Your task to perform on an android device: turn on location history Image 0: 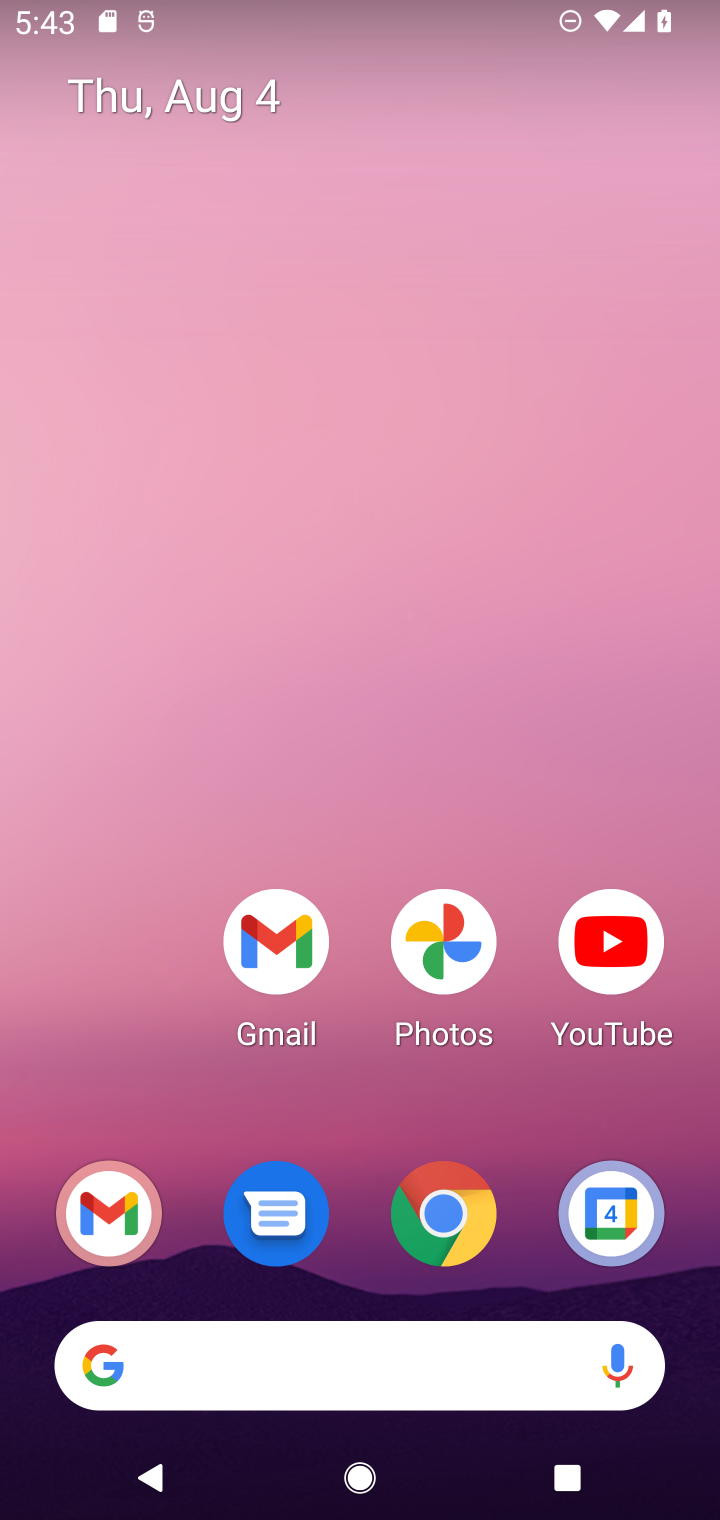
Step 0: press home button
Your task to perform on an android device: turn on location history Image 1: 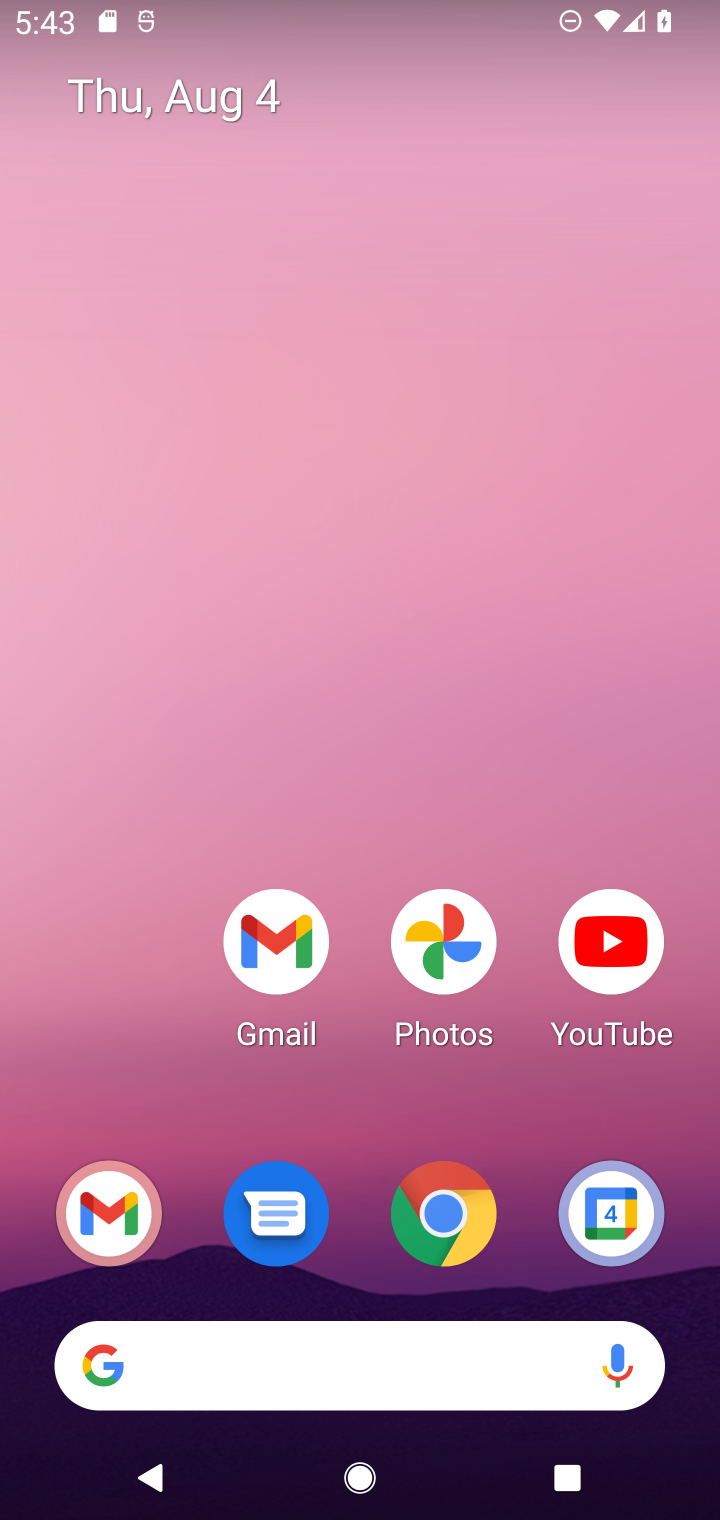
Step 1: drag from (169, 942) to (178, 339)
Your task to perform on an android device: turn on location history Image 2: 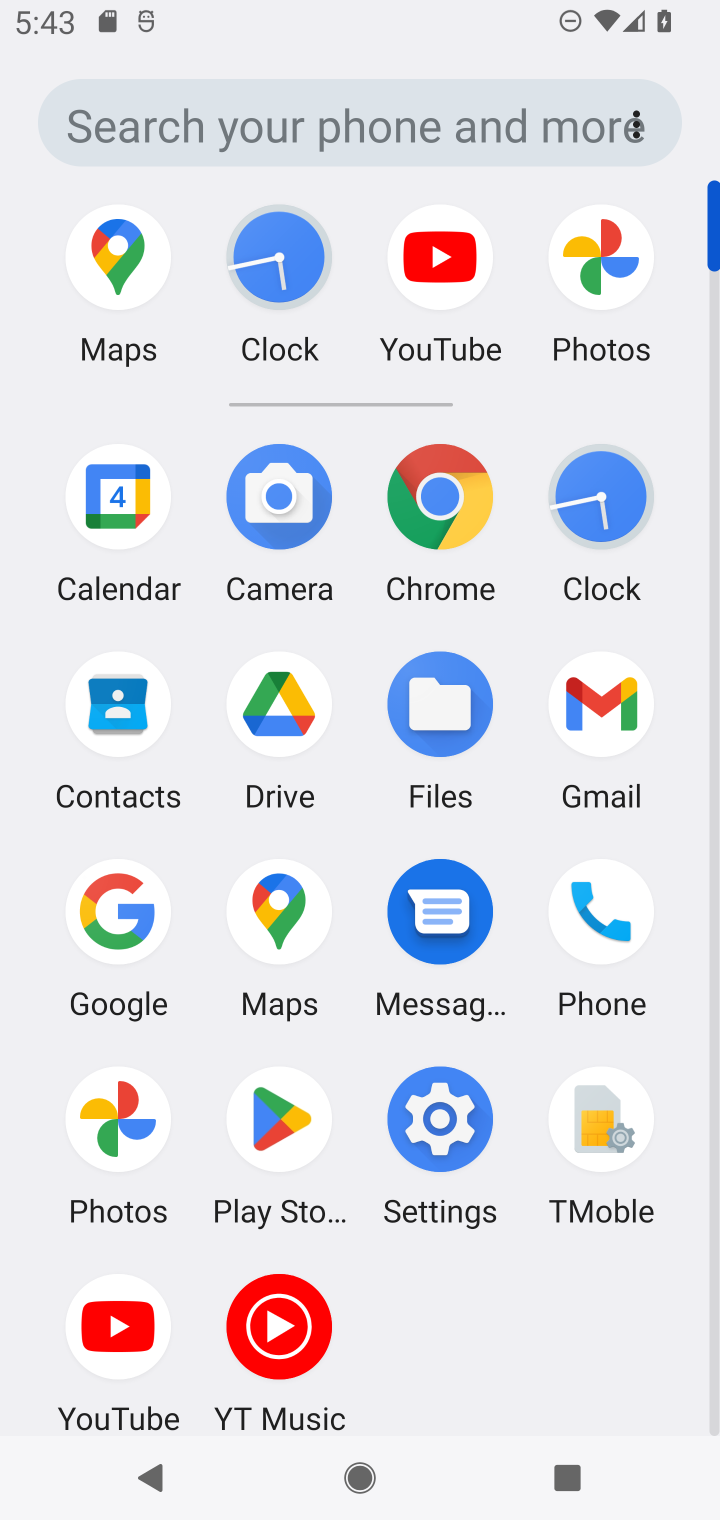
Step 2: click (455, 1132)
Your task to perform on an android device: turn on location history Image 3: 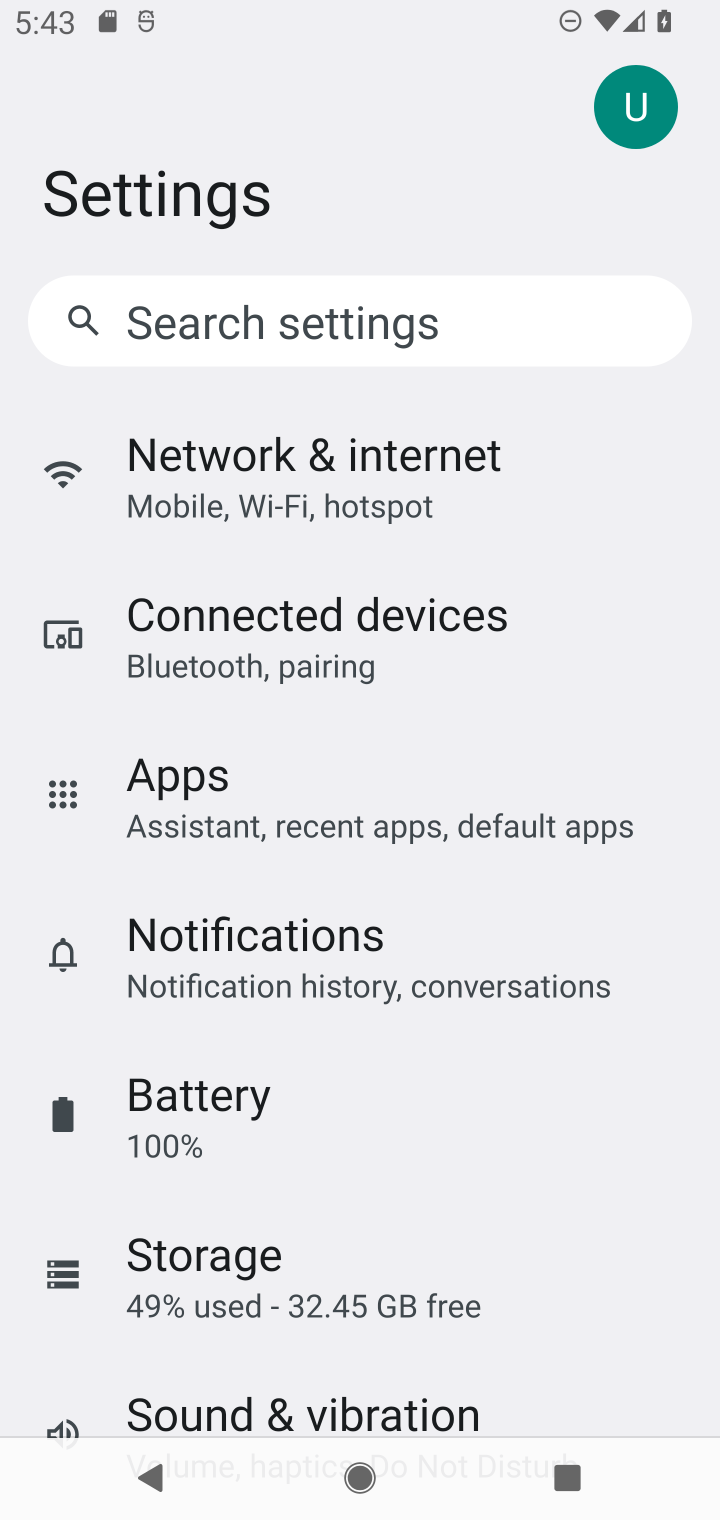
Step 3: drag from (640, 1135) to (648, 883)
Your task to perform on an android device: turn on location history Image 4: 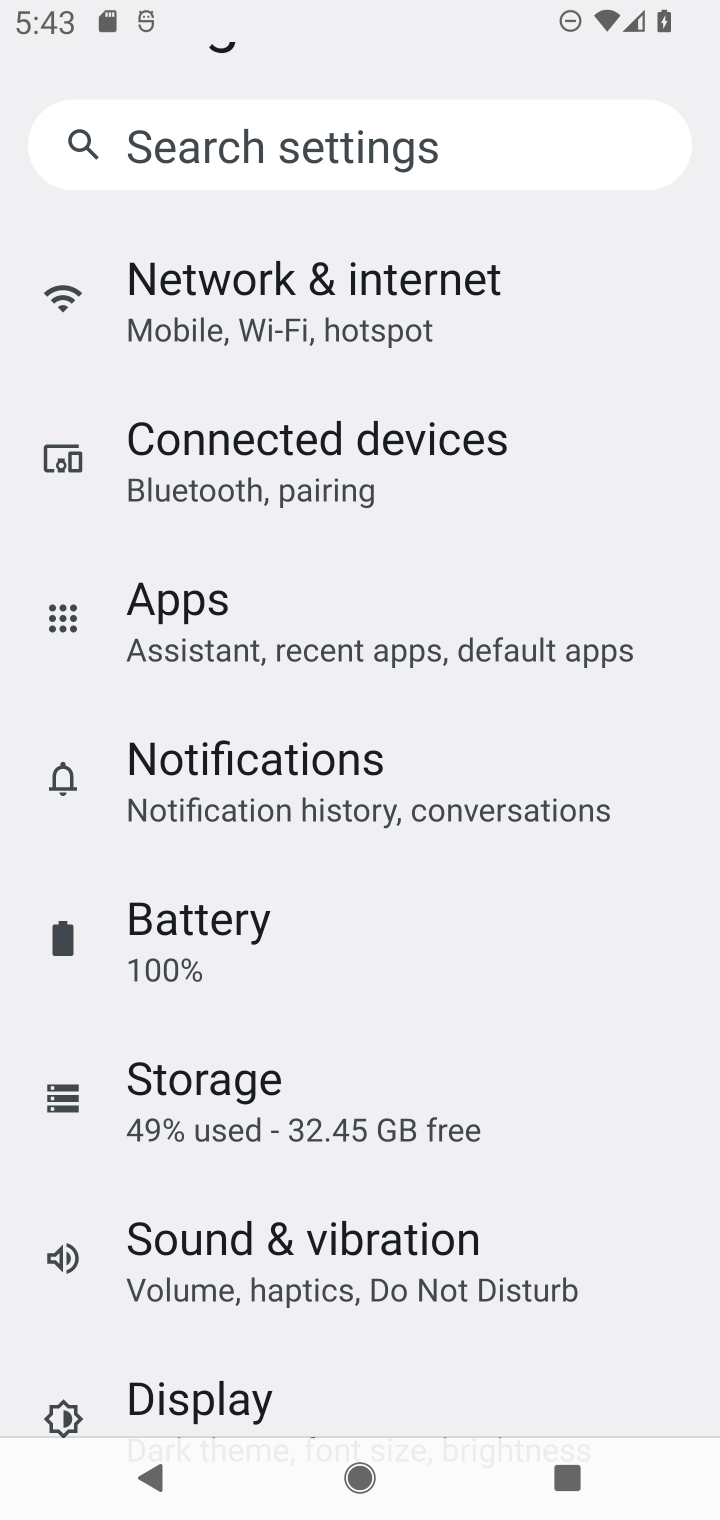
Step 4: drag from (613, 1297) to (622, 946)
Your task to perform on an android device: turn on location history Image 5: 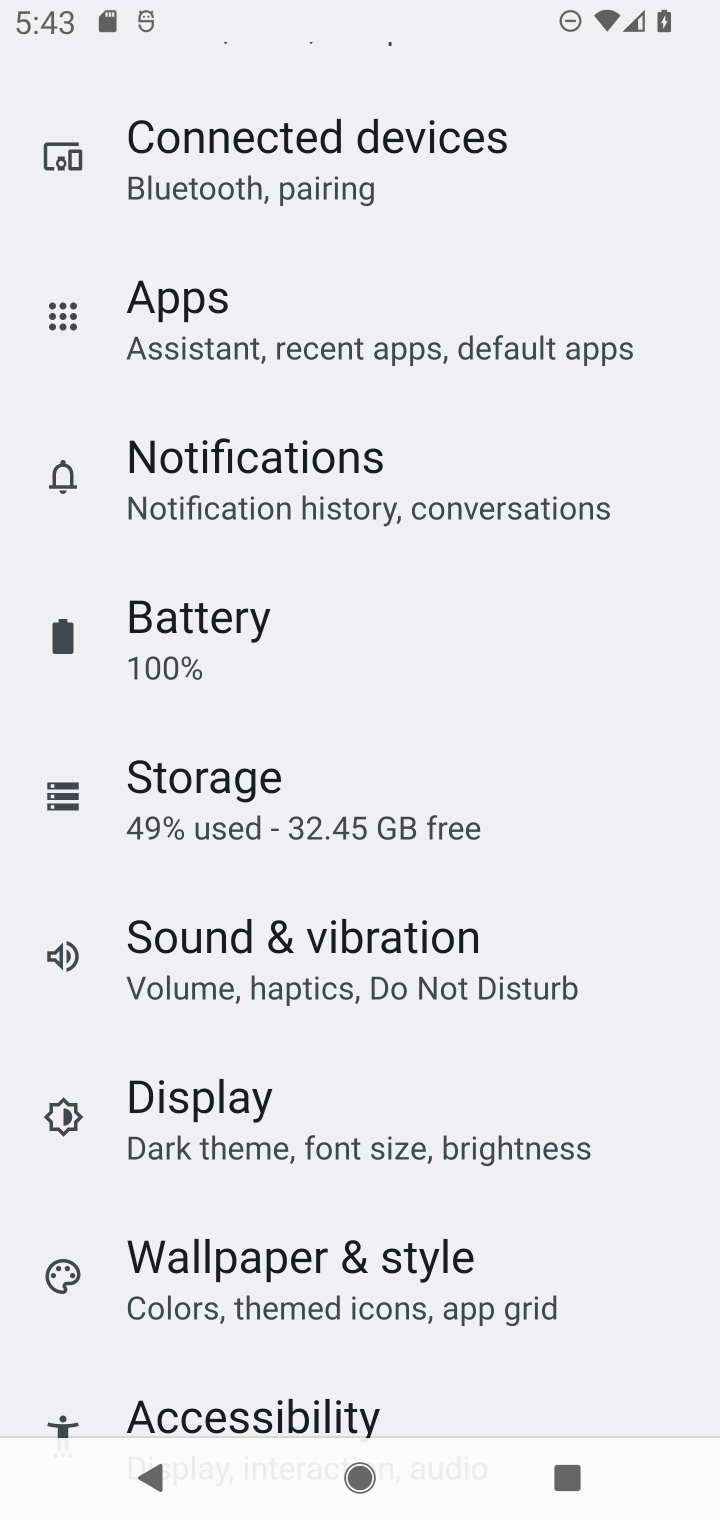
Step 5: drag from (636, 1327) to (627, 976)
Your task to perform on an android device: turn on location history Image 6: 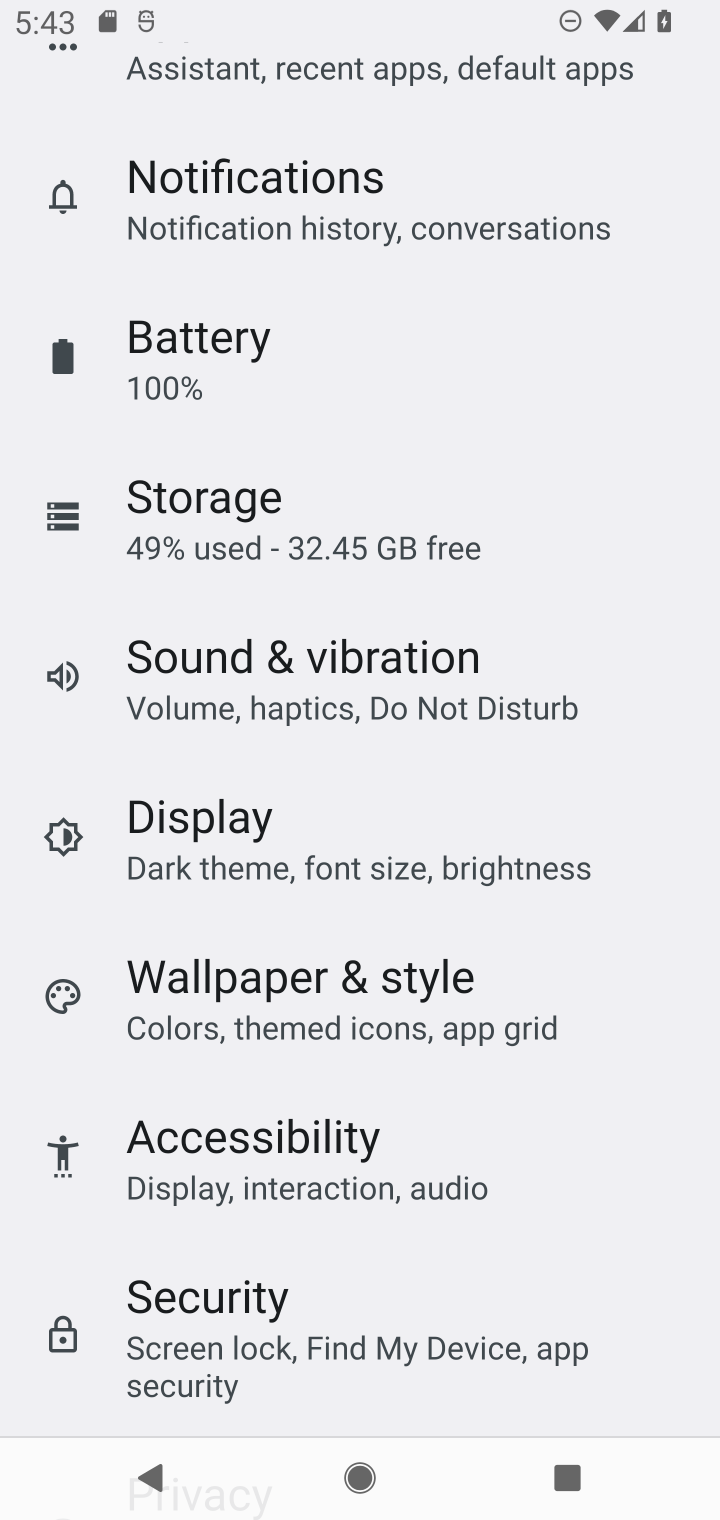
Step 6: drag from (634, 1350) to (638, 998)
Your task to perform on an android device: turn on location history Image 7: 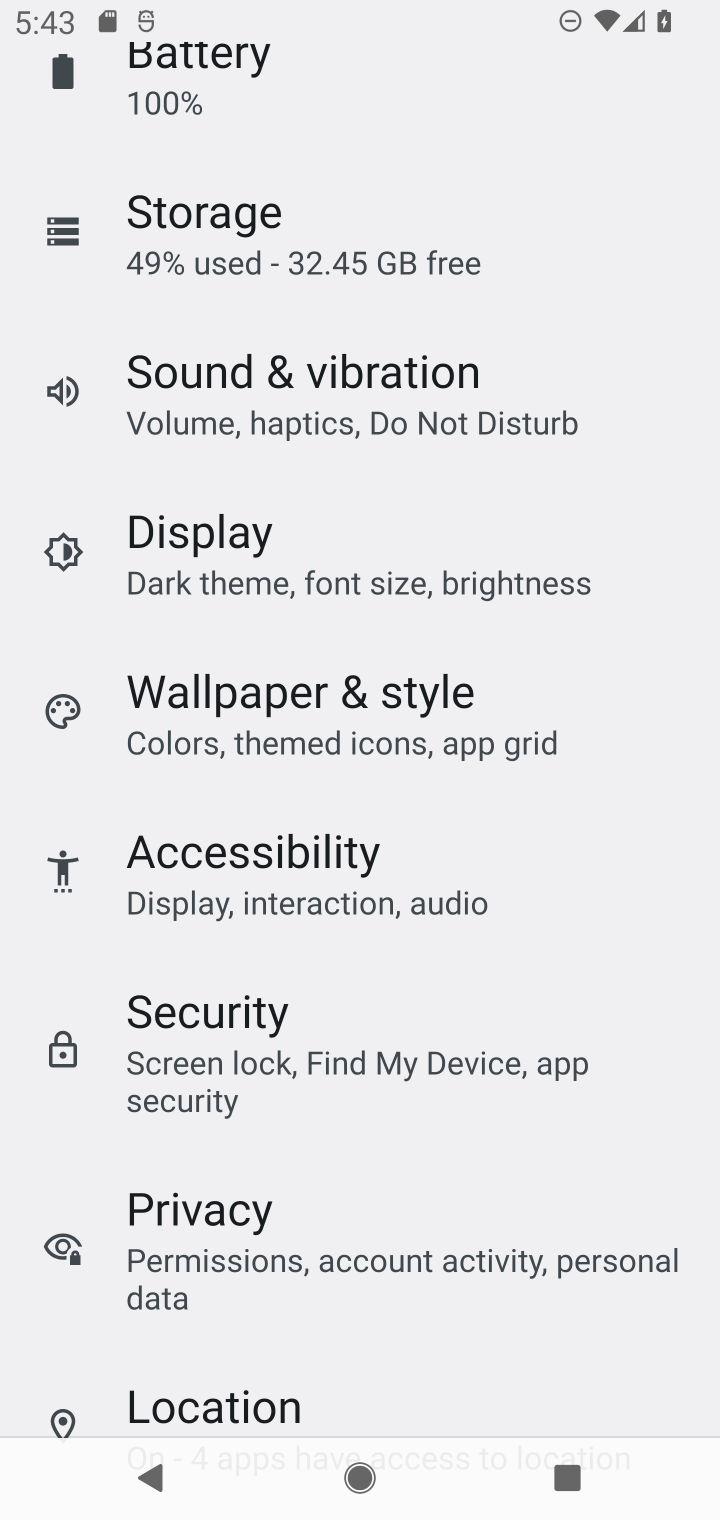
Step 7: drag from (623, 1304) to (628, 1071)
Your task to perform on an android device: turn on location history Image 8: 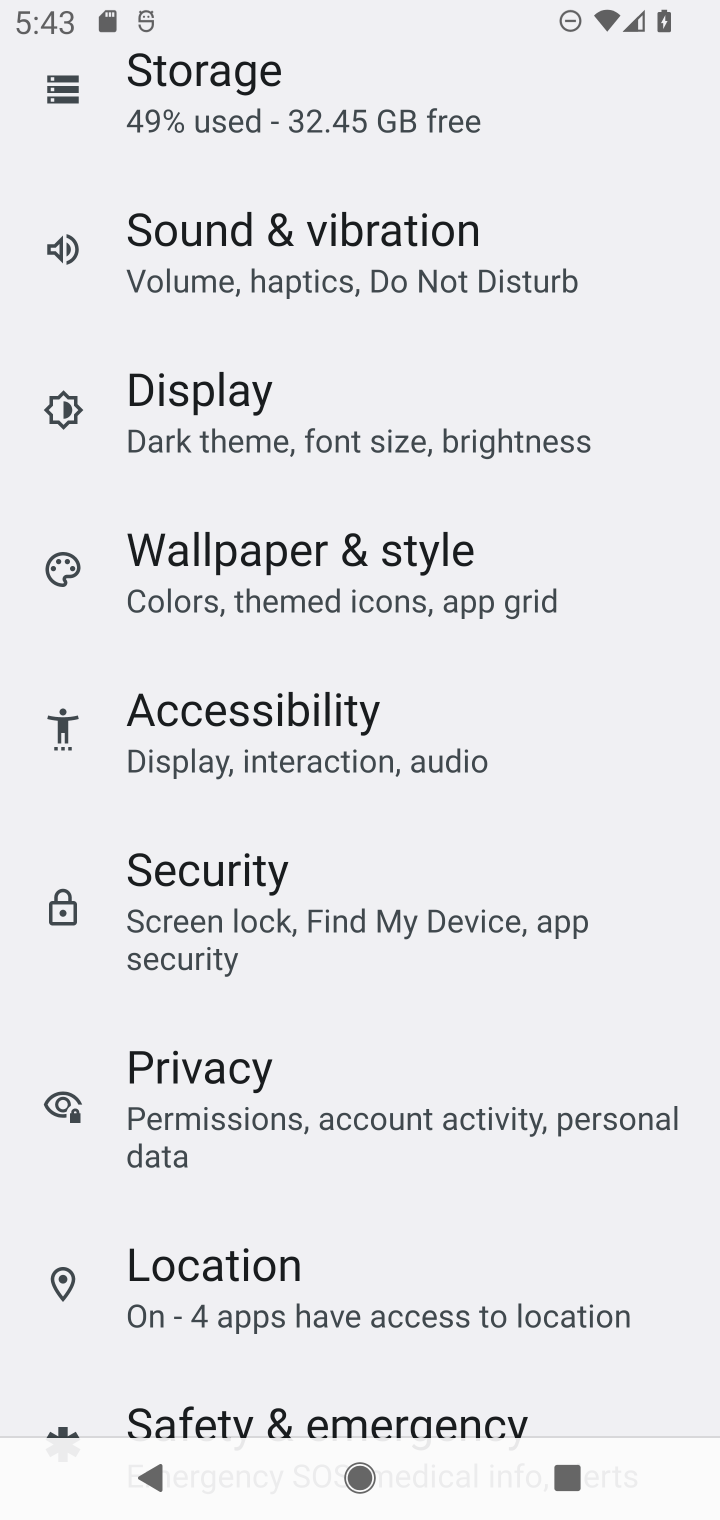
Step 8: drag from (614, 1364) to (621, 1008)
Your task to perform on an android device: turn on location history Image 9: 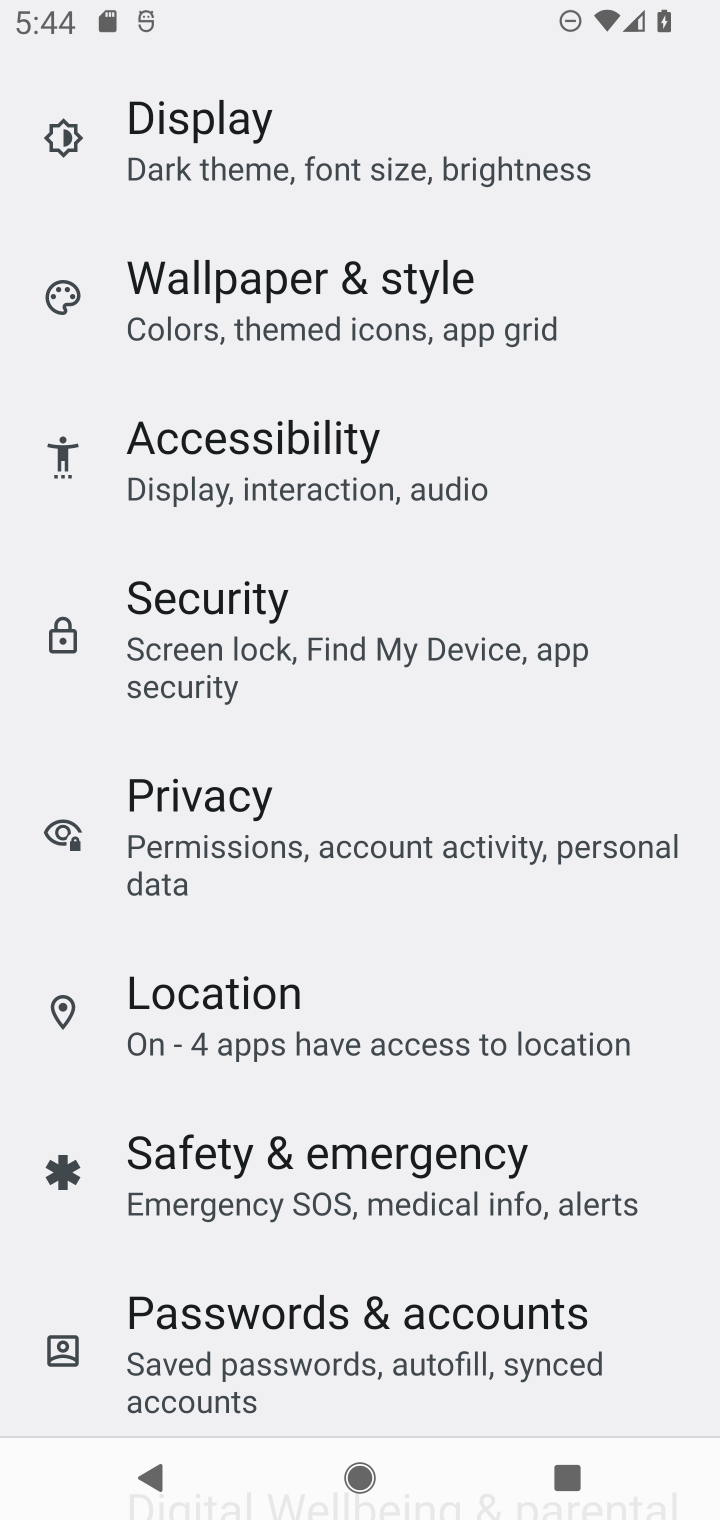
Step 9: drag from (647, 1349) to (639, 1086)
Your task to perform on an android device: turn on location history Image 10: 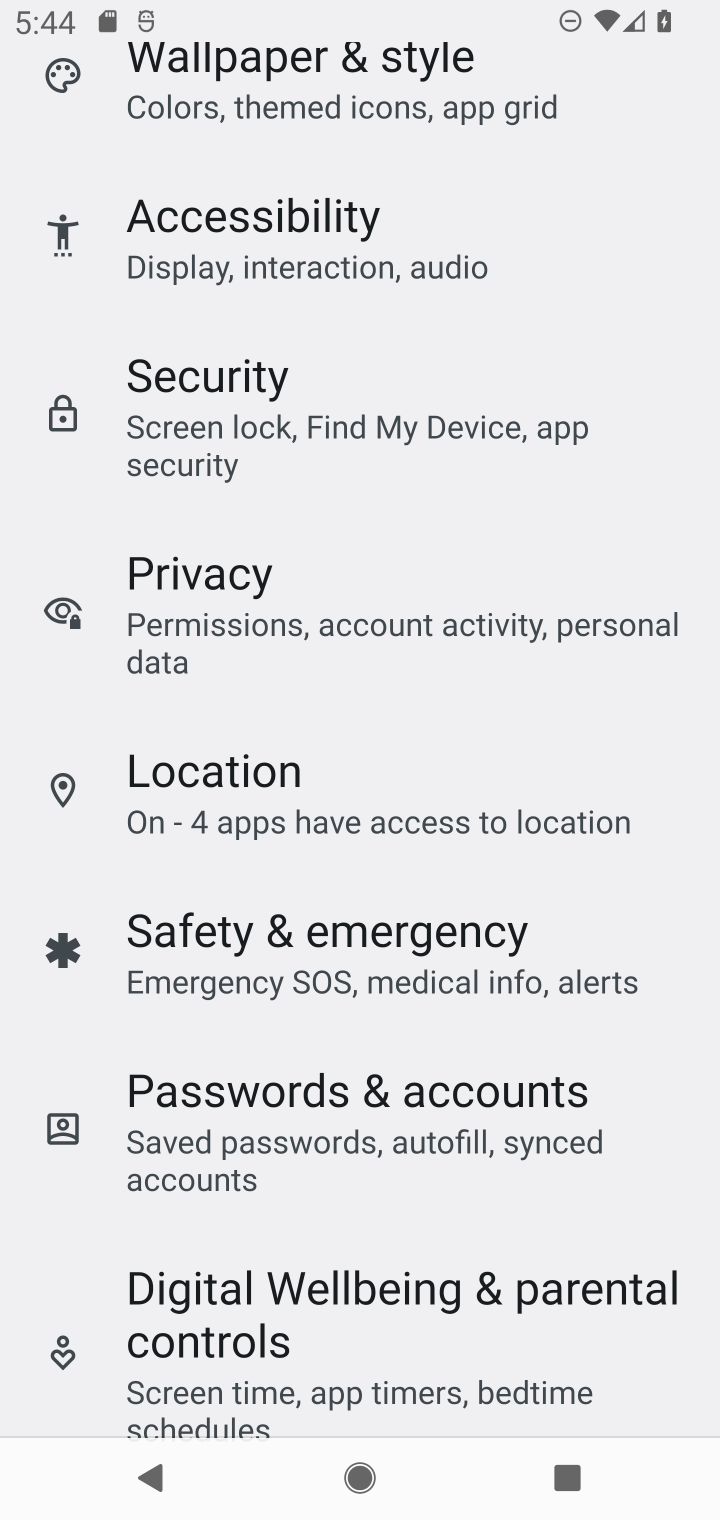
Step 10: drag from (626, 1341) to (643, 998)
Your task to perform on an android device: turn on location history Image 11: 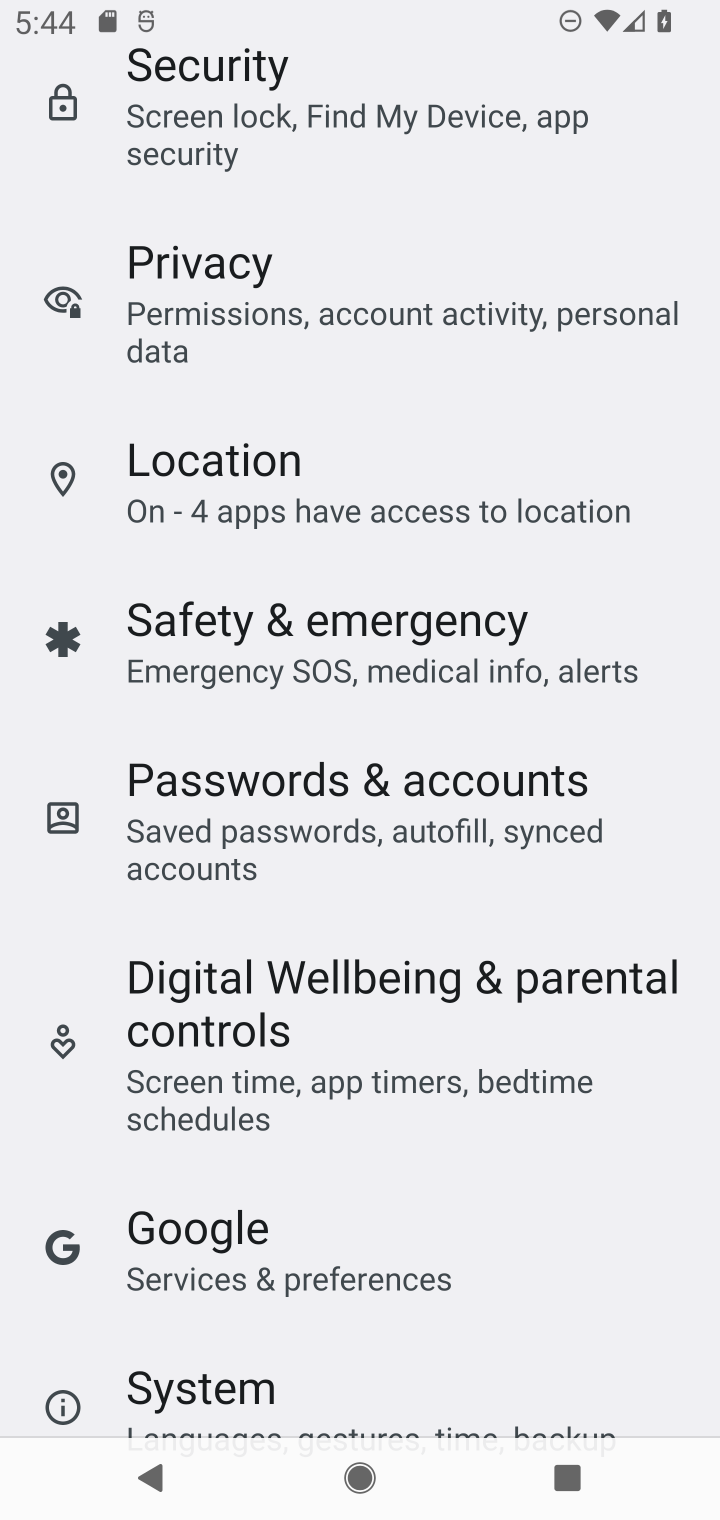
Step 11: drag from (665, 494) to (627, 860)
Your task to perform on an android device: turn on location history Image 12: 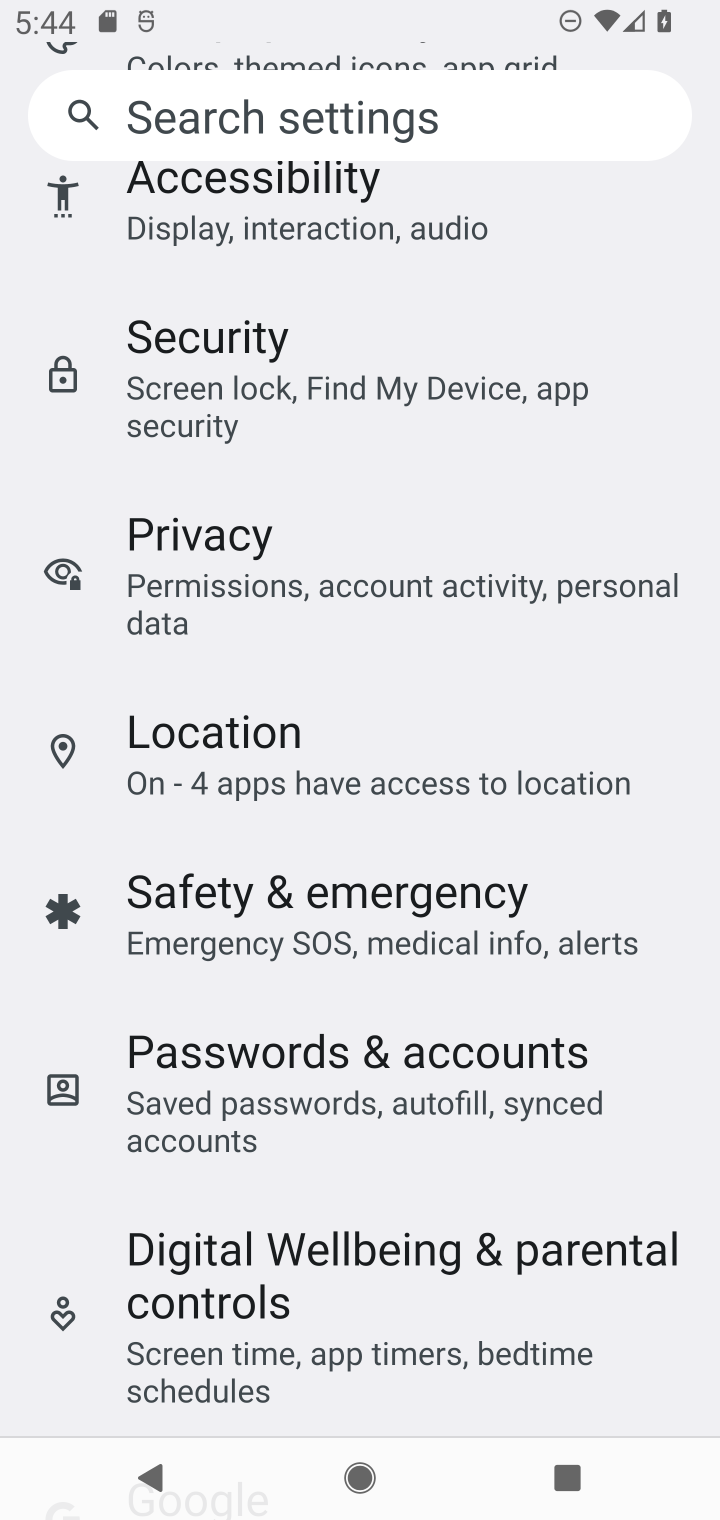
Step 12: drag from (664, 465) to (621, 781)
Your task to perform on an android device: turn on location history Image 13: 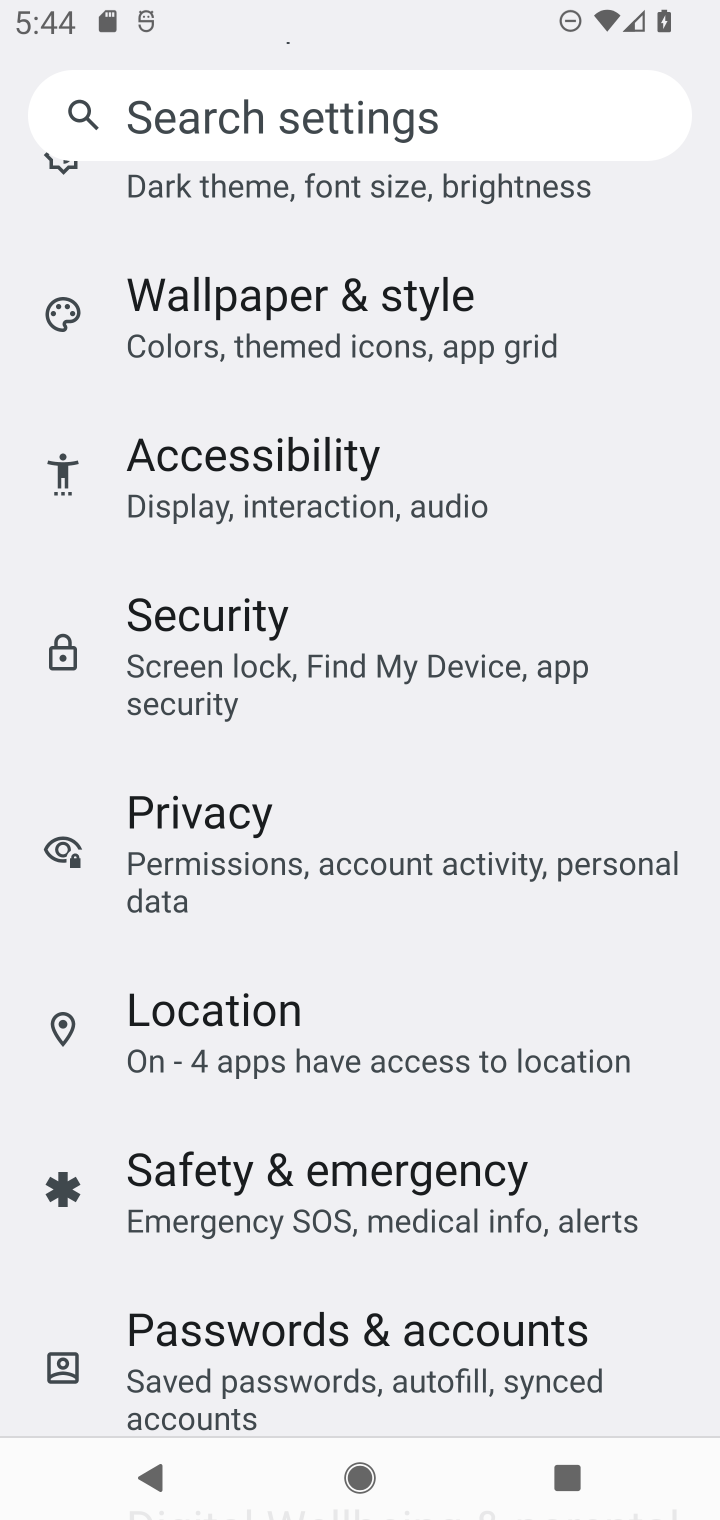
Step 13: drag from (617, 430) to (608, 801)
Your task to perform on an android device: turn on location history Image 14: 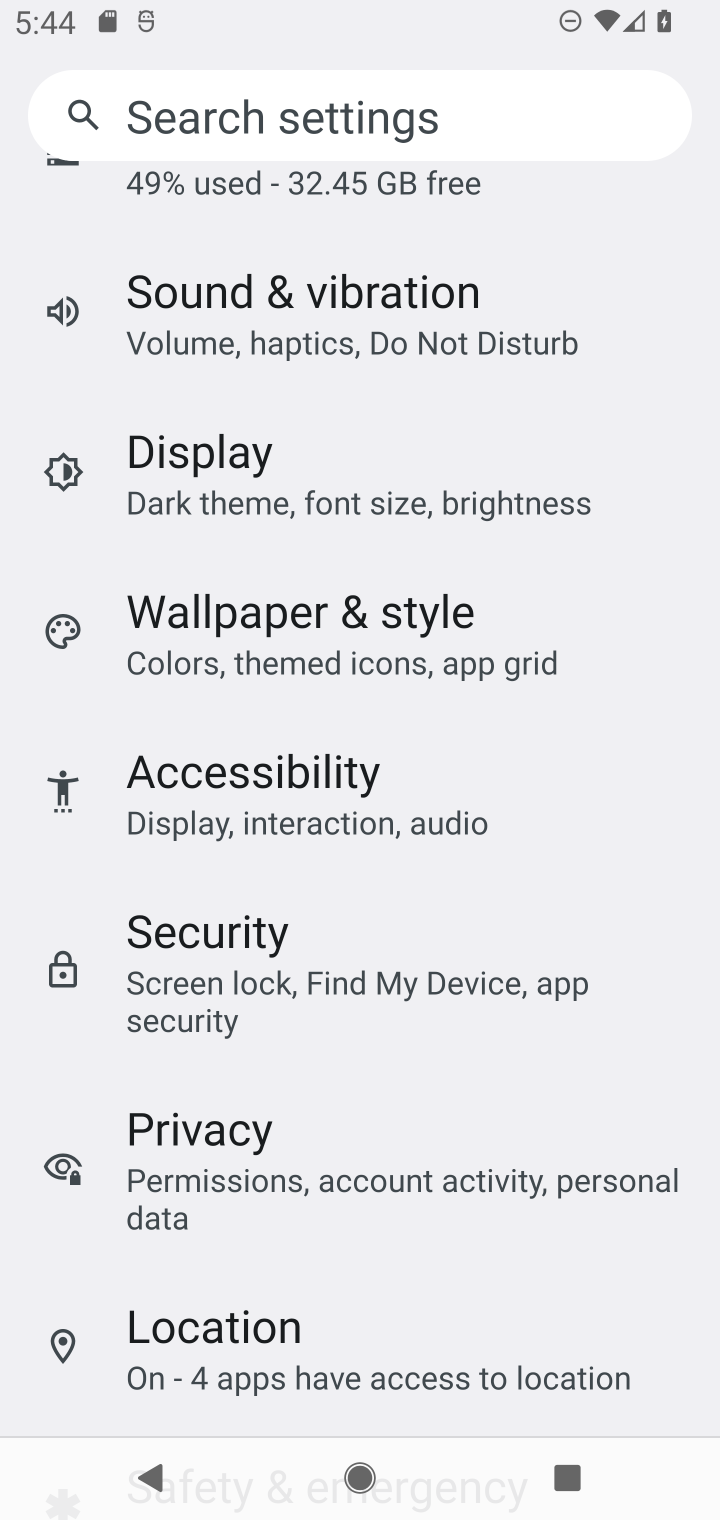
Step 14: drag from (652, 371) to (624, 701)
Your task to perform on an android device: turn on location history Image 15: 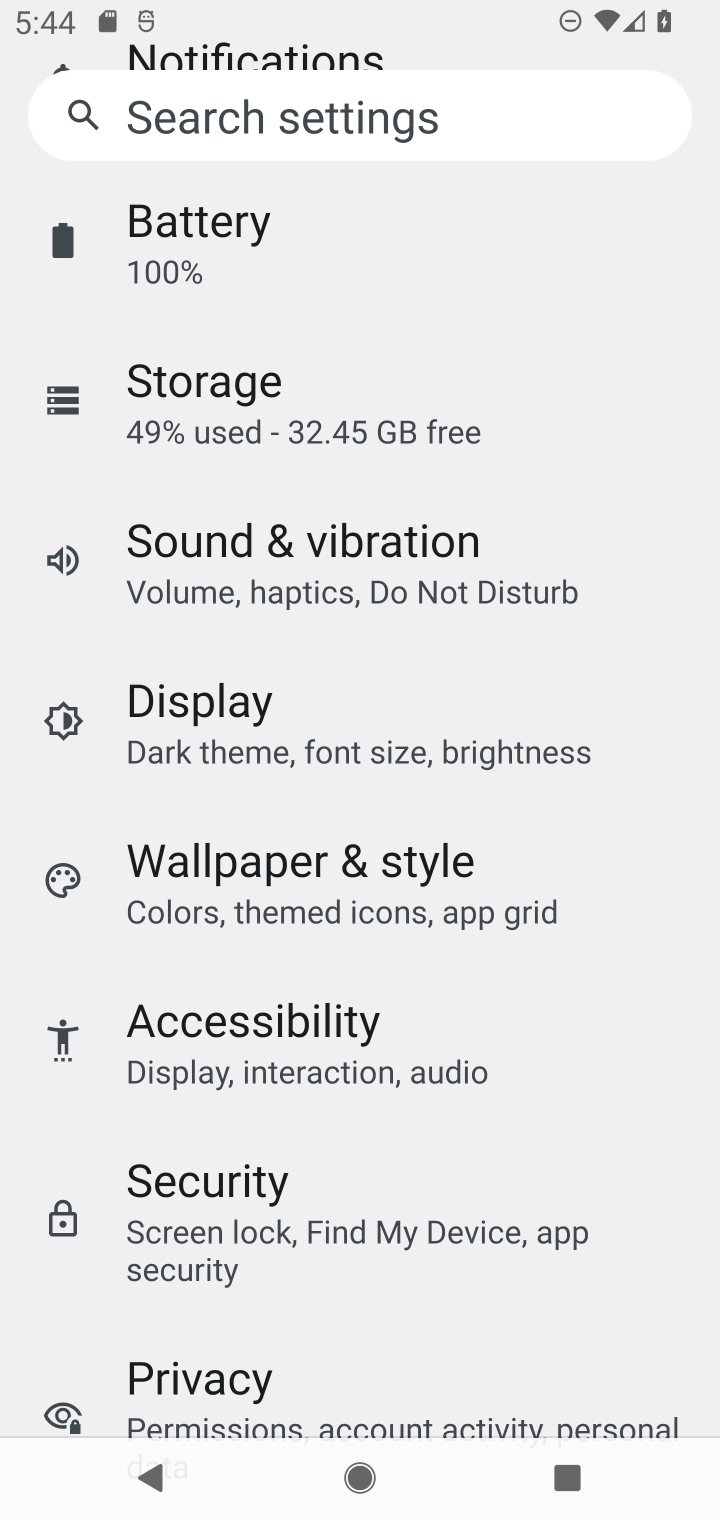
Step 15: drag from (618, 1092) to (617, 765)
Your task to perform on an android device: turn on location history Image 16: 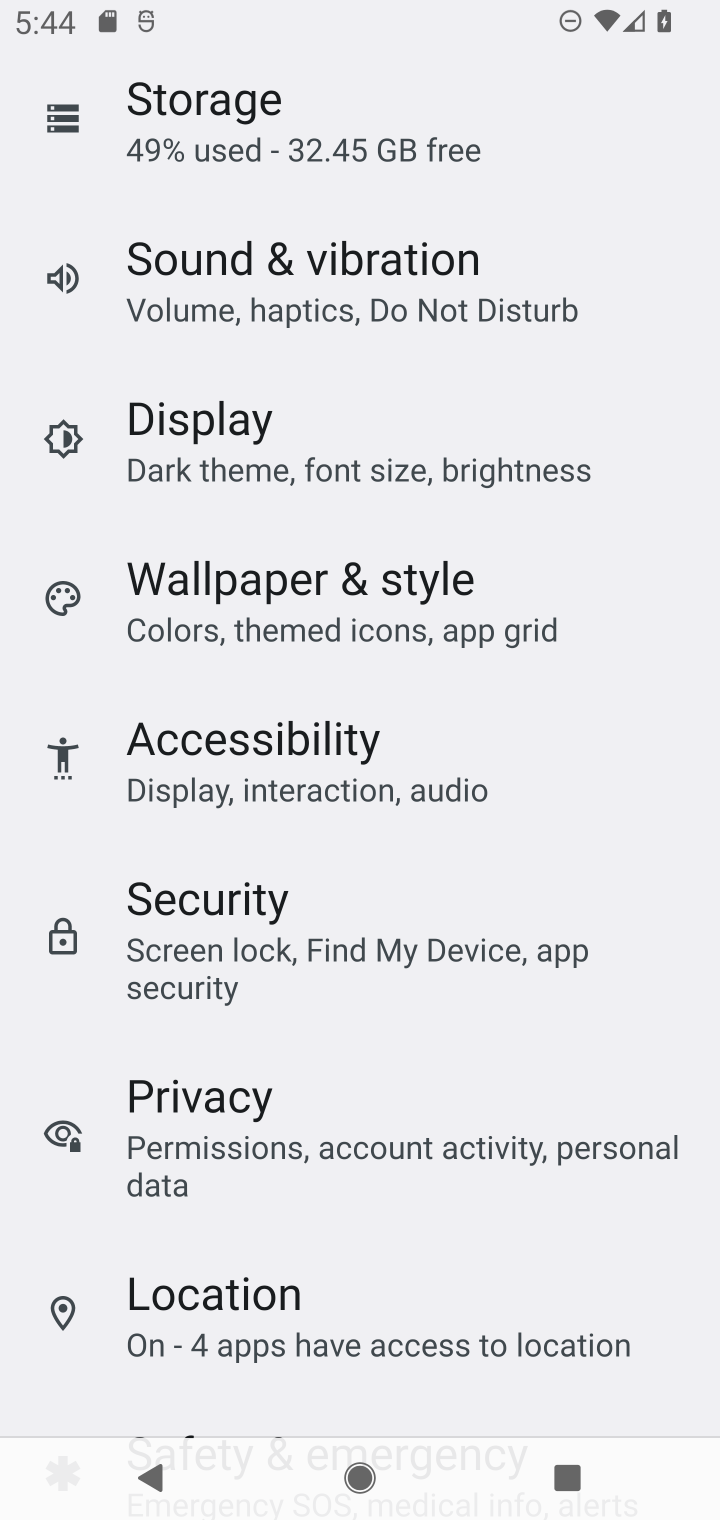
Step 16: click (576, 1263)
Your task to perform on an android device: turn on location history Image 17: 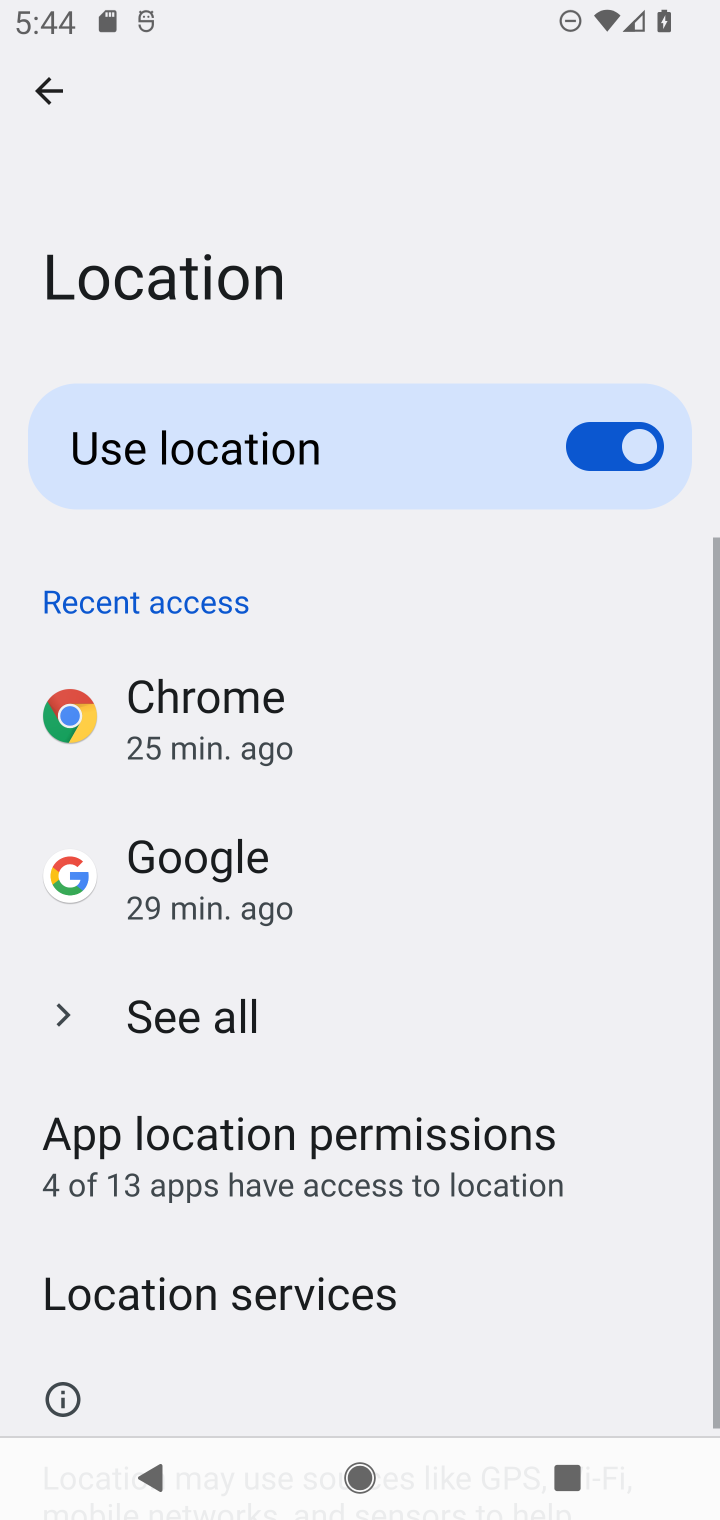
Step 17: click (443, 1283)
Your task to perform on an android device: turn on location history Image 18: 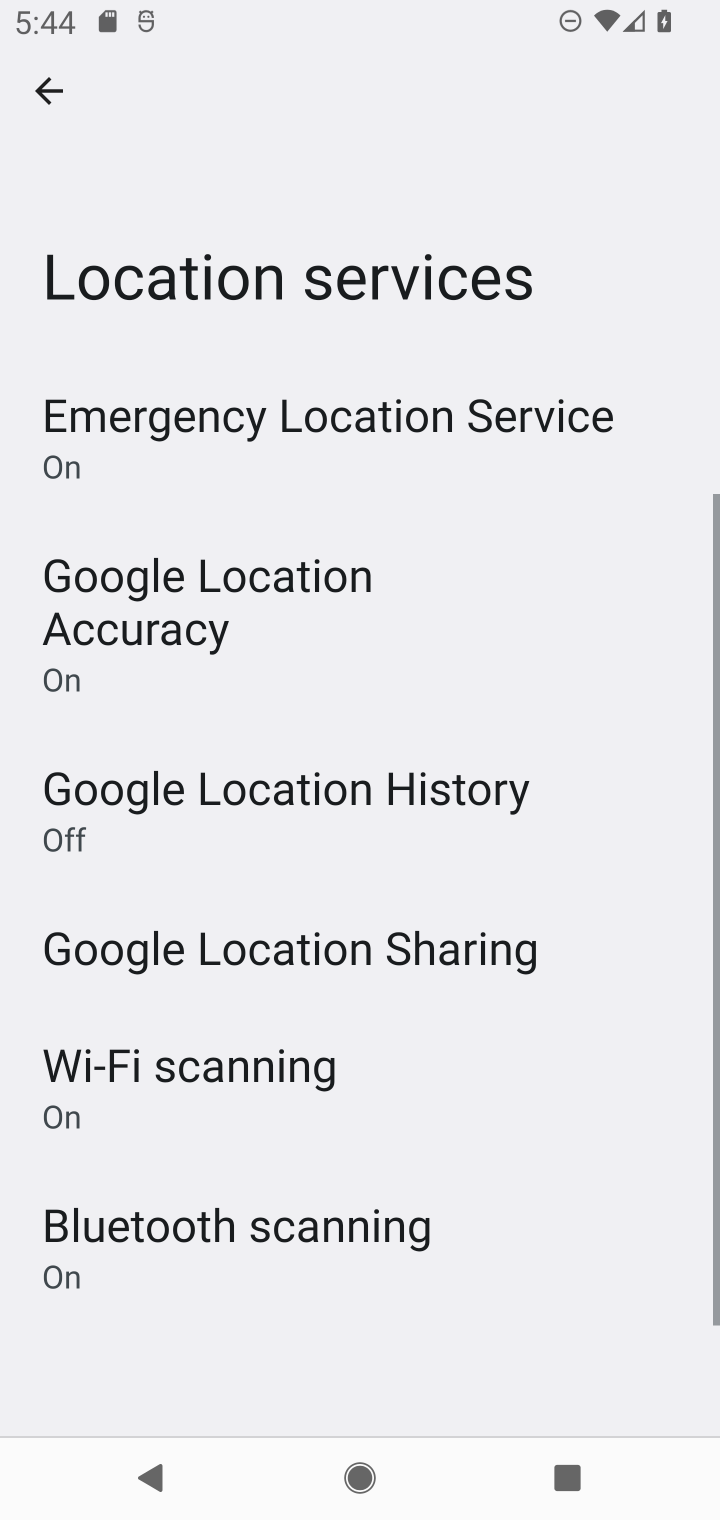
Step 18: drag from (502, 1196) to (540, 687)
Your task to perform on an android device: turn on location history Image 19: 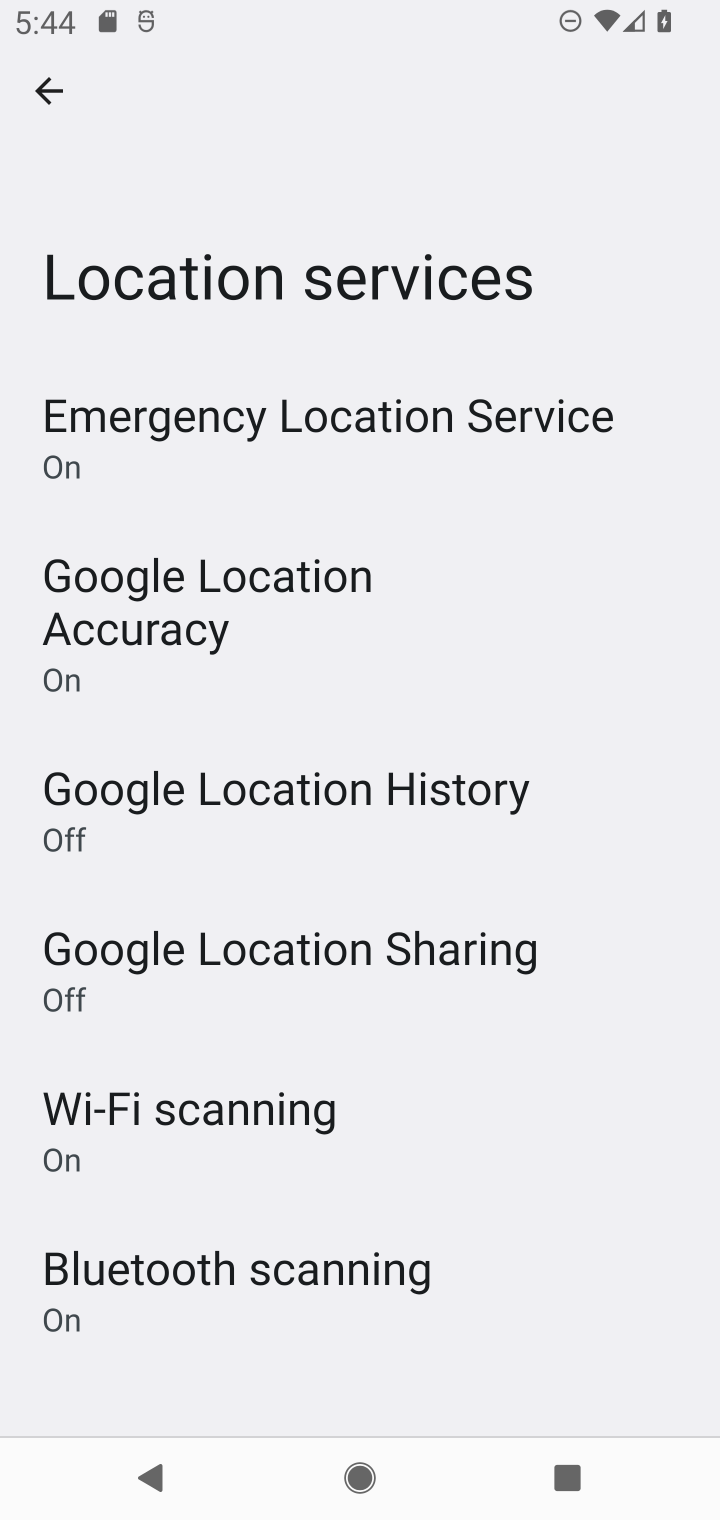
Step 19: click (463, 778)
Your task to perform on an android device: turn on location history Image 20: 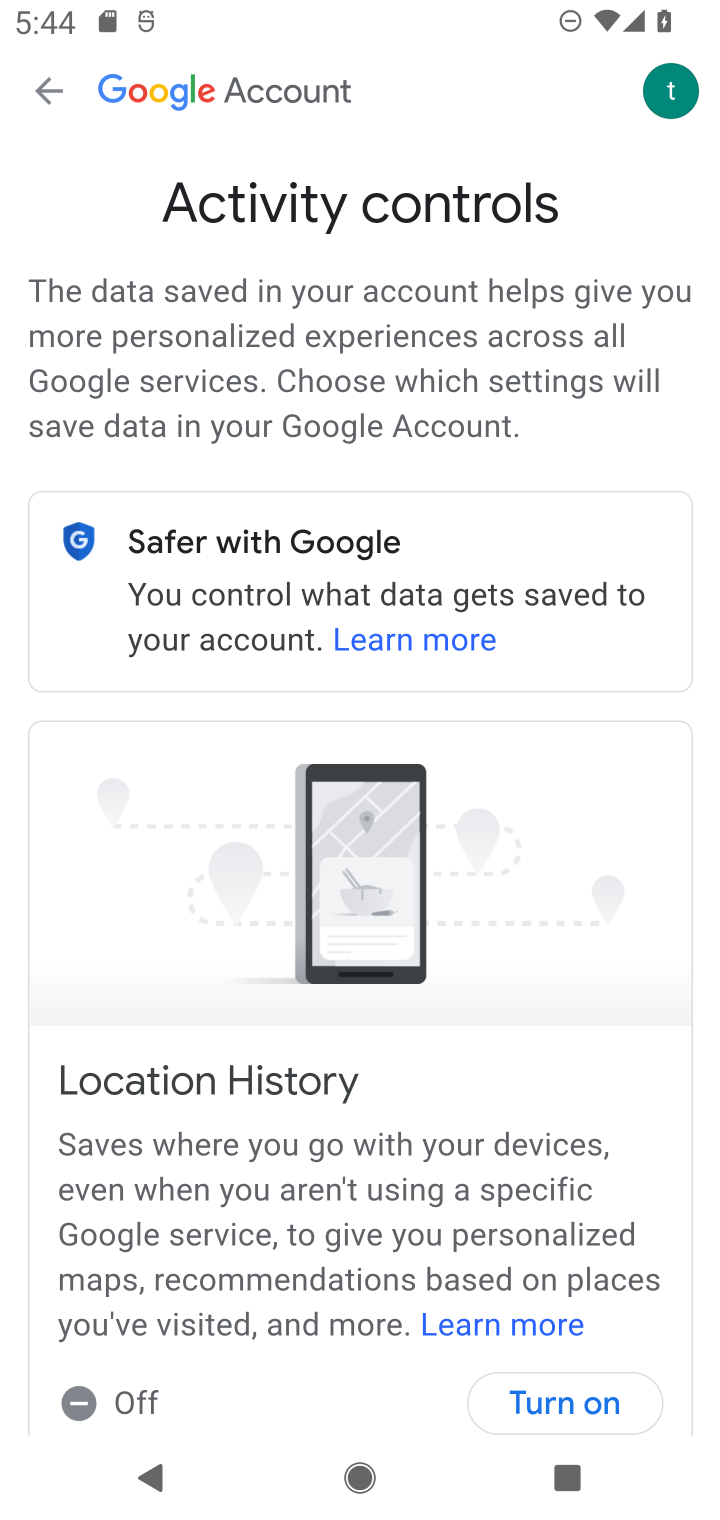
Step 20: click (549, 1405)
Your task to perform on an android device: turn on location history Image 21: 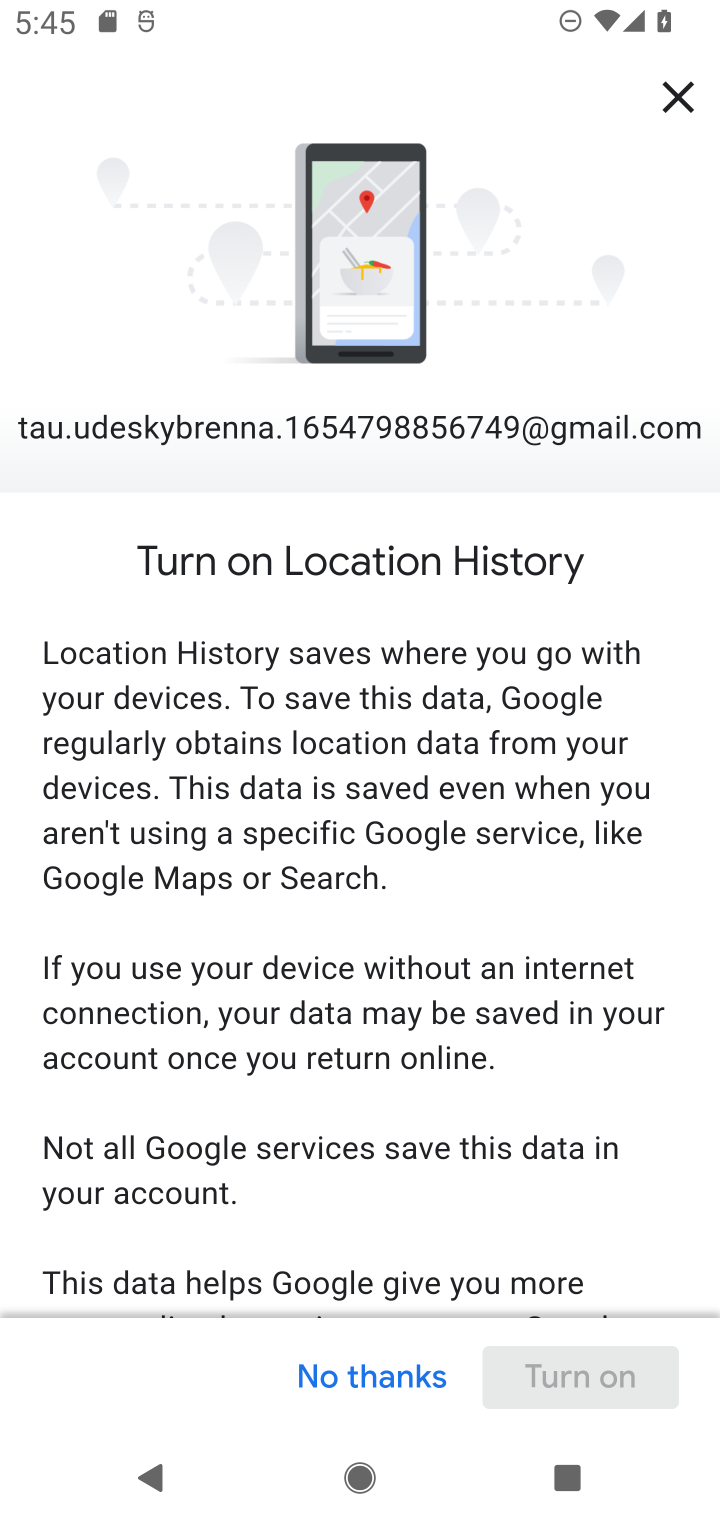
Step 21: drag from (562, 1223) to (585, 750)
Your task to perform on an android device: turn on location history Image 22: 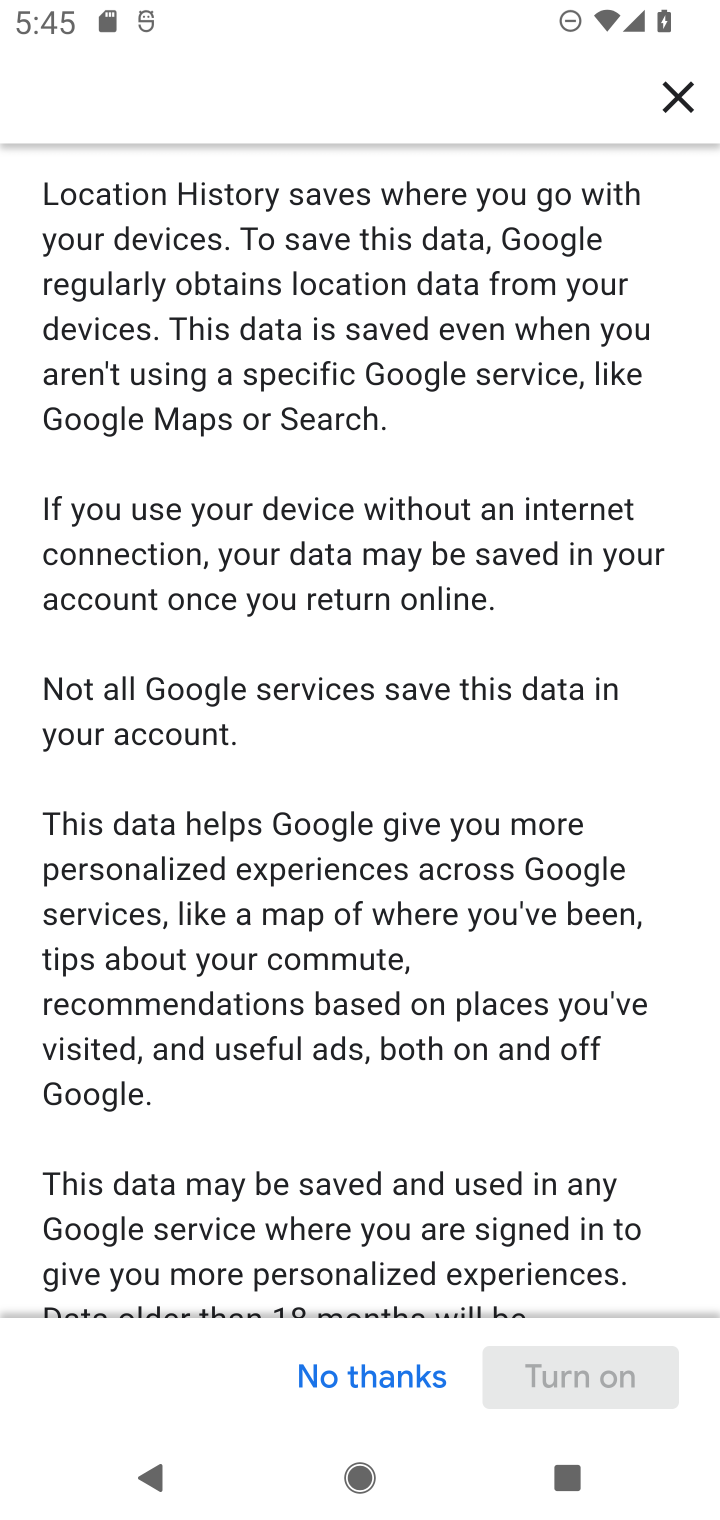
Step 22: drag from (572, 1197) to (576, 739)
Your task to perform on an android device: turn on location history Image 23: 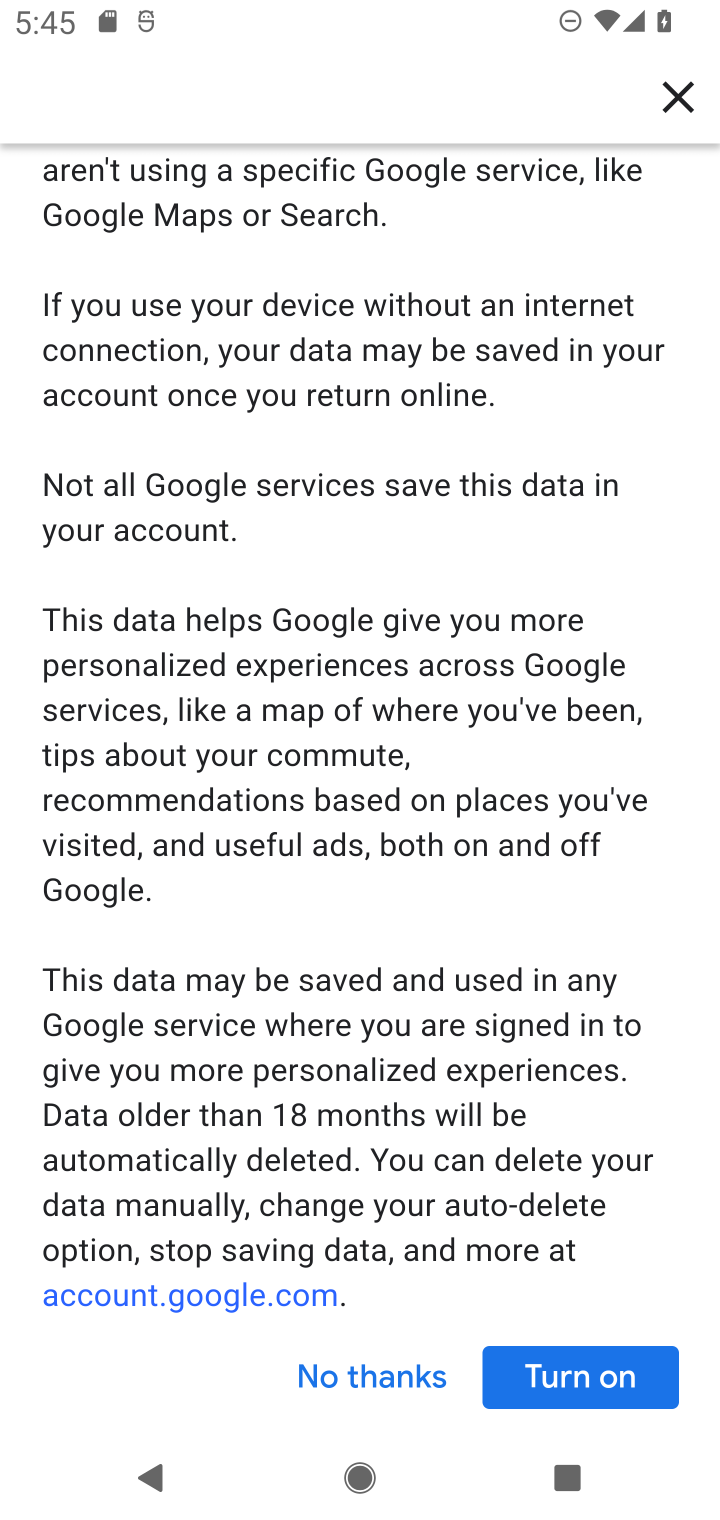
Step 23: drag from (575, 1109) to (531, 663)
Your task to perform on an android device: turn on location history Image 24: 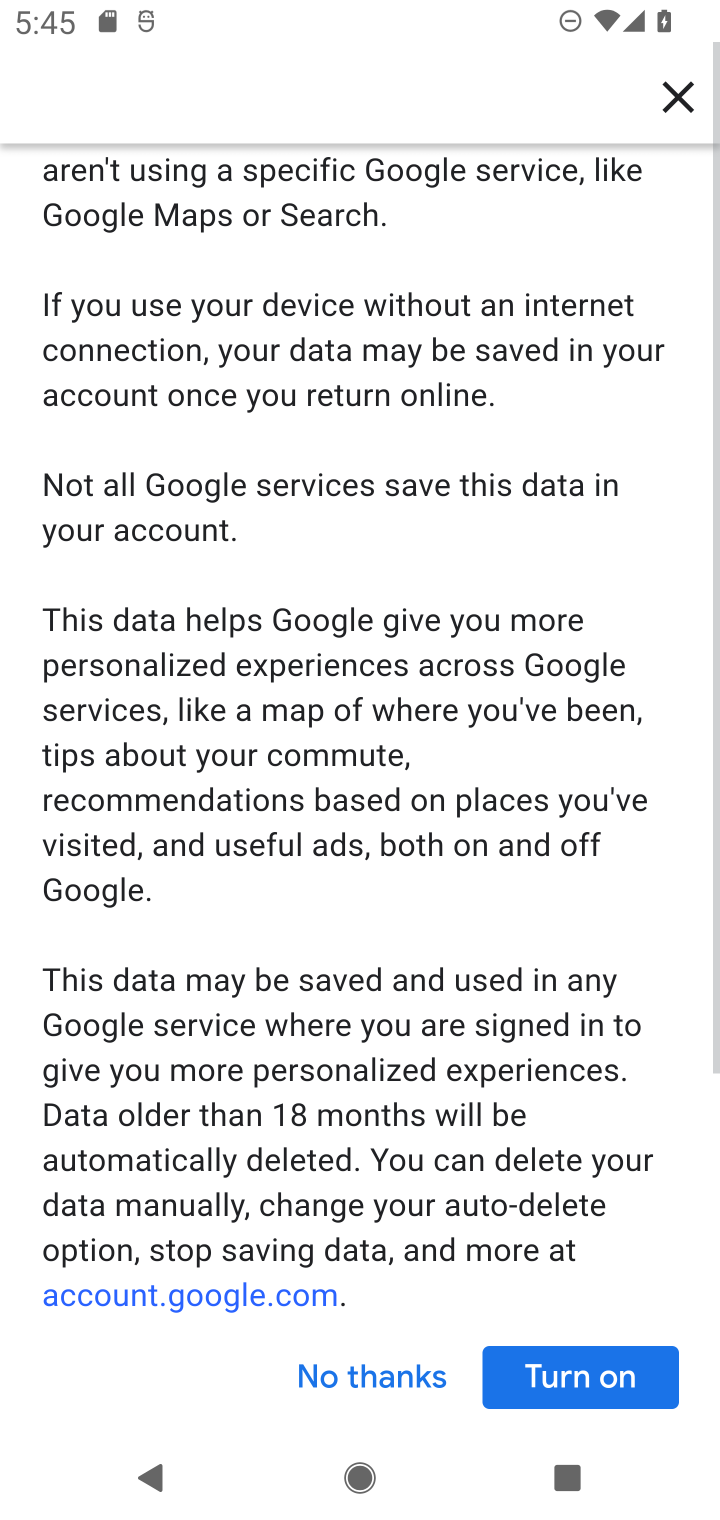
Step 24: click (588, 1373)
Your task to perform on an android device: turn on location history Image 25: 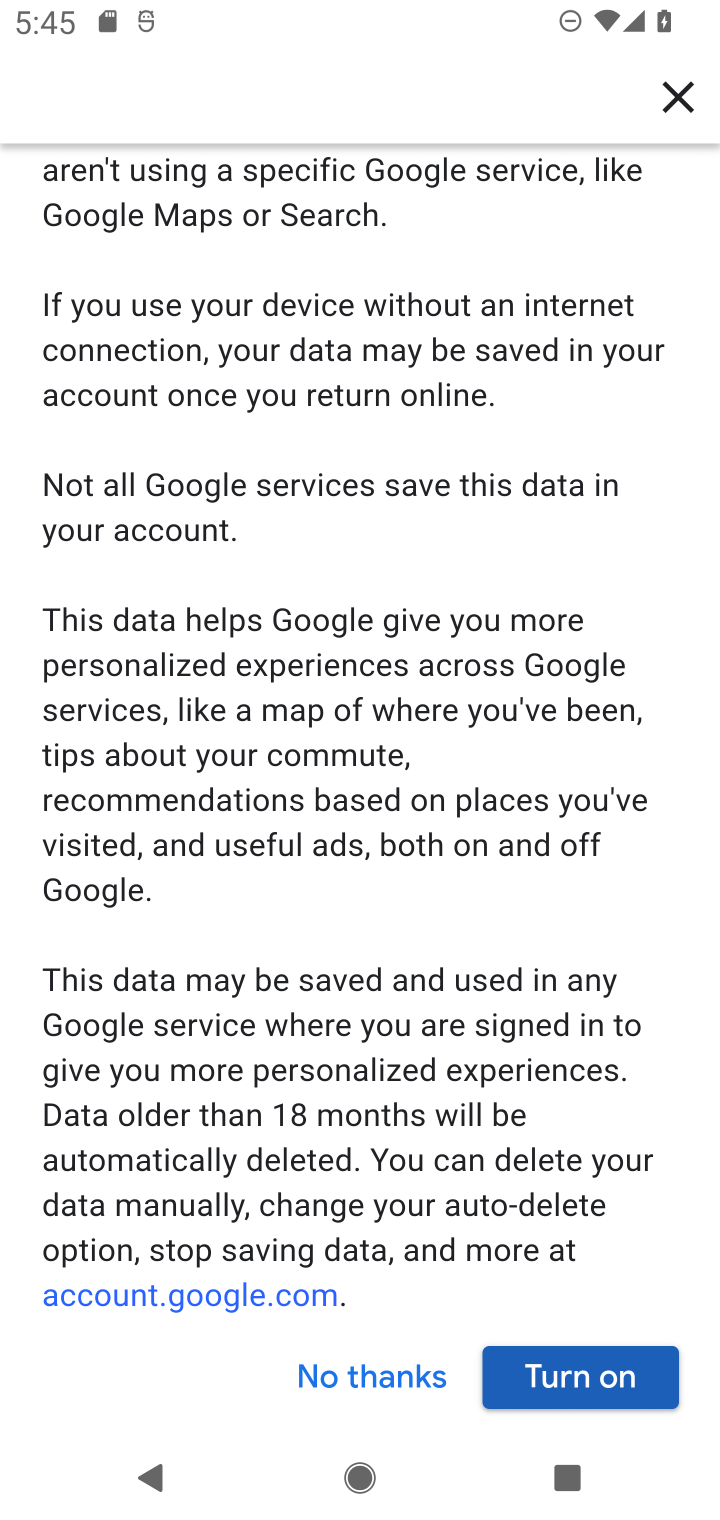
Step 25: click (607, 1376)
Your task to perform on an android device: turn on location history Image 26: 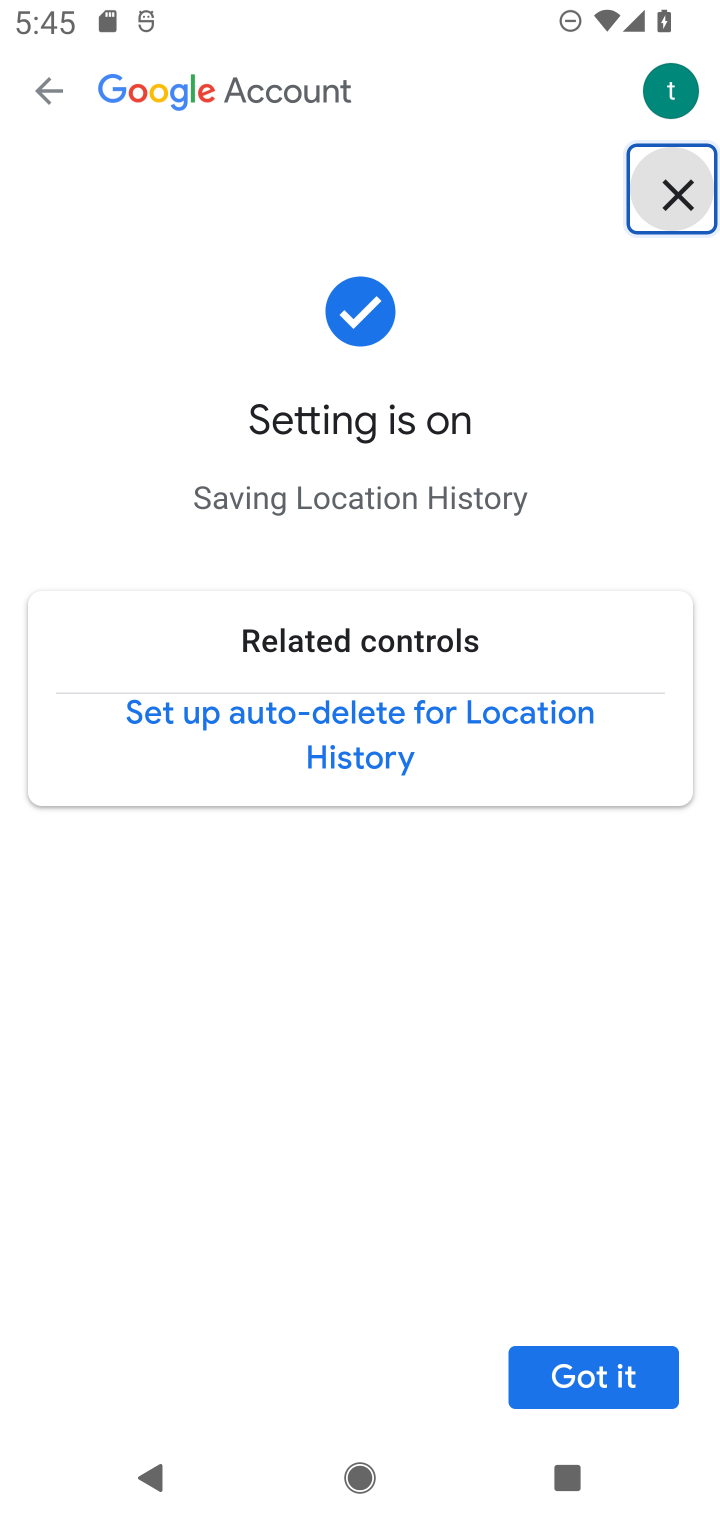
Step 26: task complete